Your task to perform on an android device: Open Google Chrome Image 0: 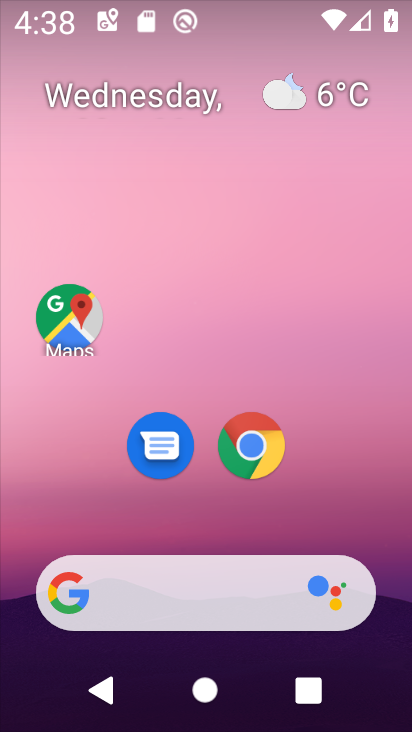
Step 0: click (246, 8)
Your task to perform on an android device: Open Google Chrome Image 1: 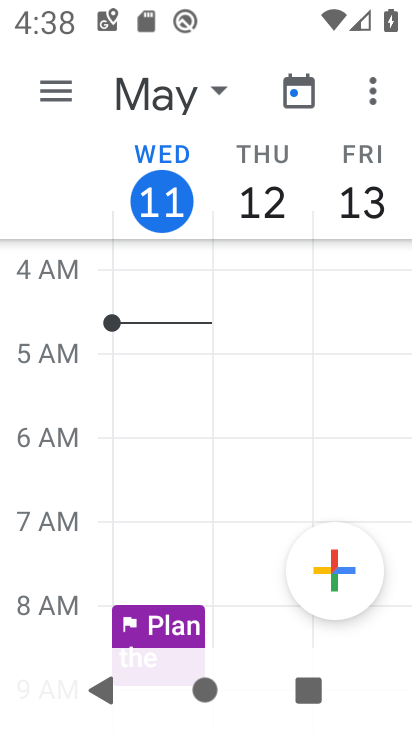
Step 1: press home button
Your task to perform on an android device: Open Google Chrome Image 2: 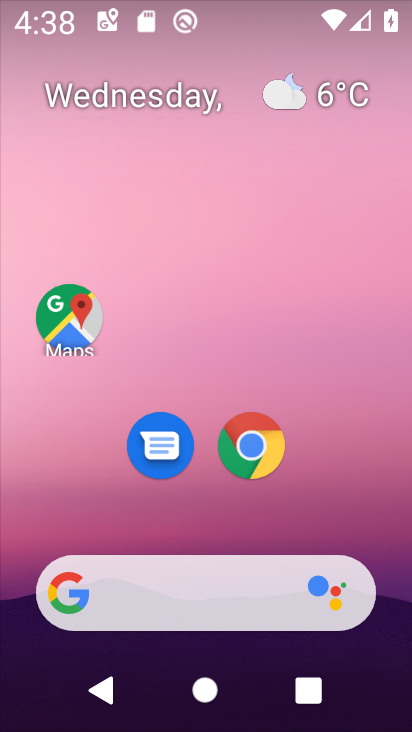
Step 2: click (264, 457)
Your task to perform on an android device: Open Google Chrome Image 3: 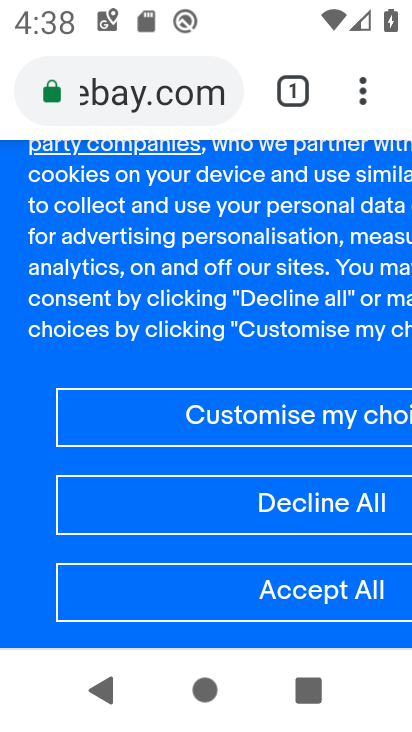
Step 3: task complete